Your task to perform on an android device: turn off javascript in the chrome app Image 0: 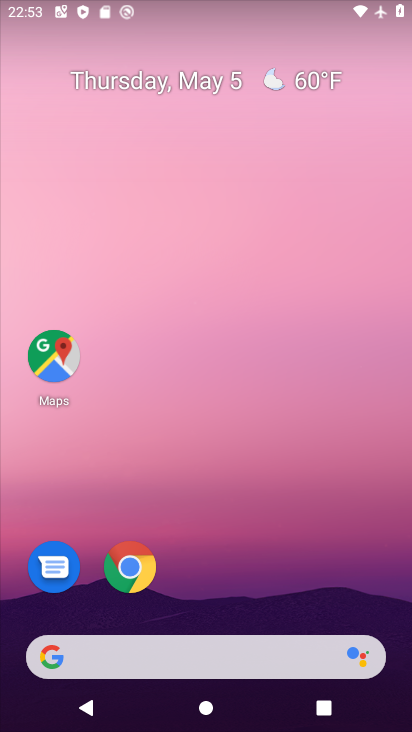
Step 0: click (145, 565)
Your task to perform on an android device: turn off javascript in the chrome app Image 1: 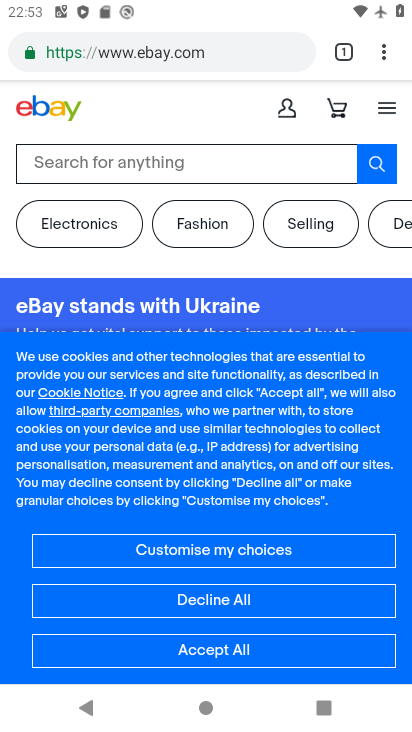
Step 1: click (383, 54)
Your task to perform on an android device: turn off javascript in the chrome app Image 2: 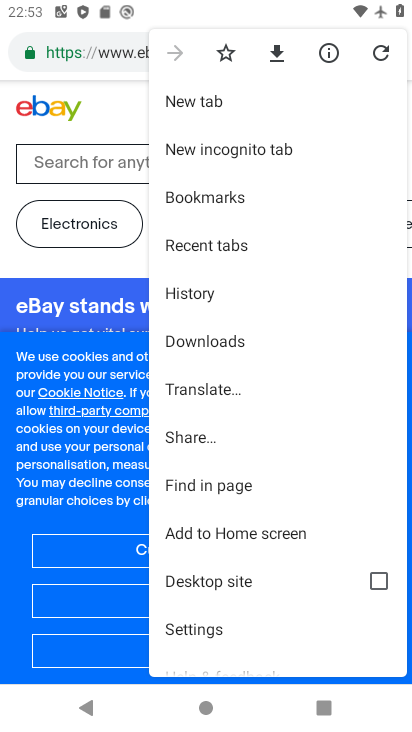
Step 2: click (209, 626)
Your task to perform on an android device: turn off javascript in the chrome app Image 3: 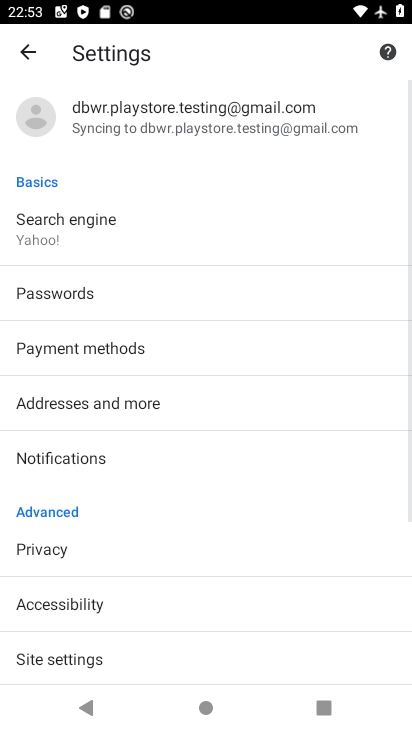
Step 3: drag from (149, 614) to (155, 392)
Your task to perform on an android device: turn off javascript in the chrome app Image 4: 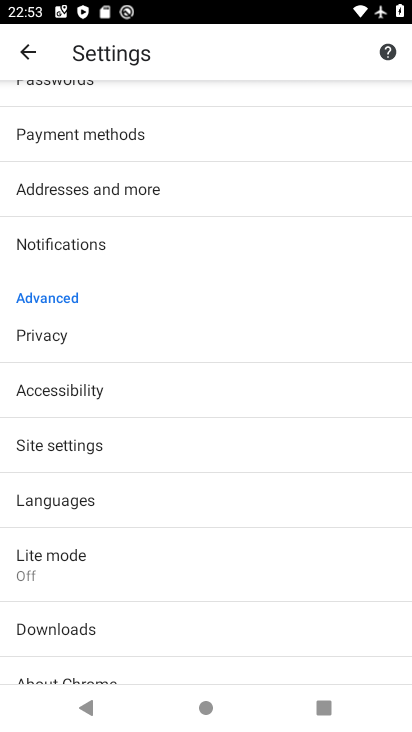
Step 4: click (99, 444)
Your task to perform on an android device: turn off javascript in the chrome app Image 5: 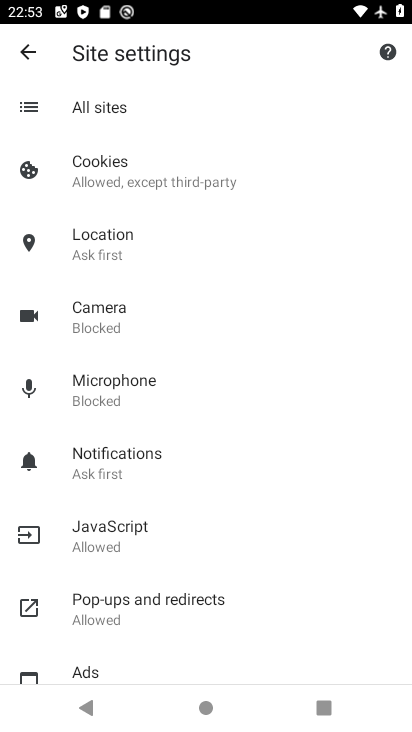
Step 5: click (161, 517)
Your task to perform on an android device: turn off javascript in the chrome app Image 6: 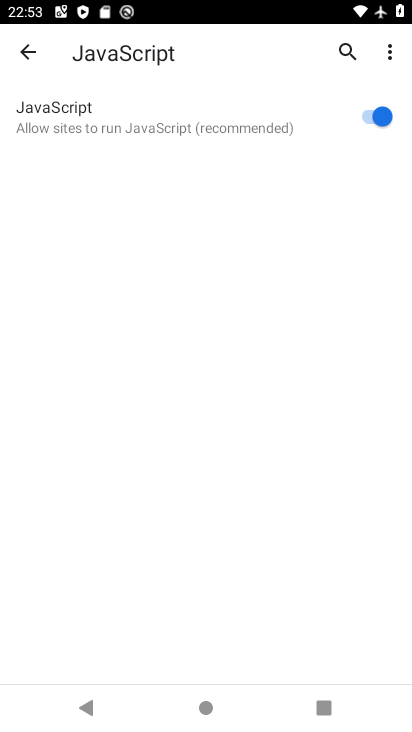
Step 6: click (360, 117)
Your task to perform on an android device: turn off javascript in the chrome app Image 7: 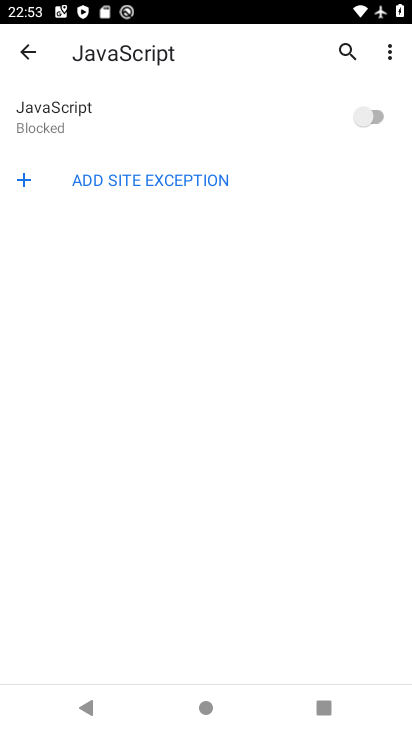
Step 7: task complete